Your task to perform on an android device: Do I have any events today? Image 0: 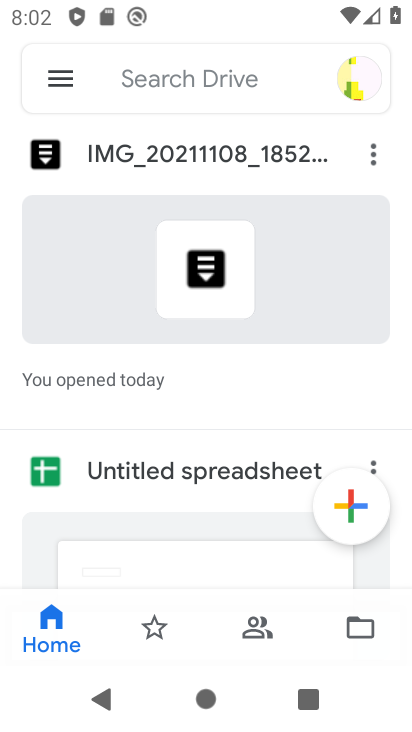
Step 0: press home button
Your task to perform on an android device: Do I have any events today? Image 1: 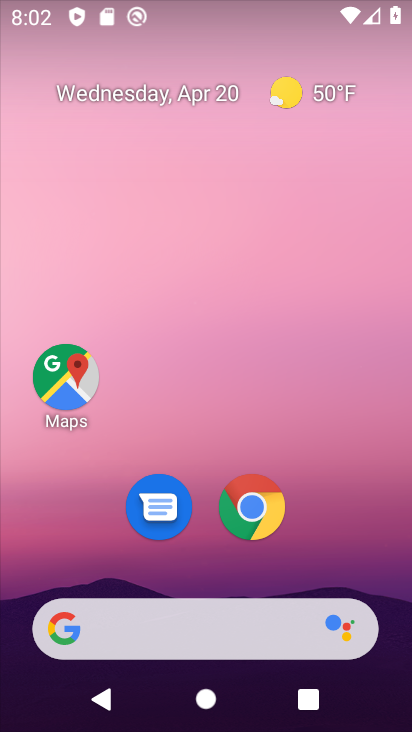
Step 1: drag from (264, 692) to (389, 148)
Your task to perform on an android device: Do I have any events today? Image 2: 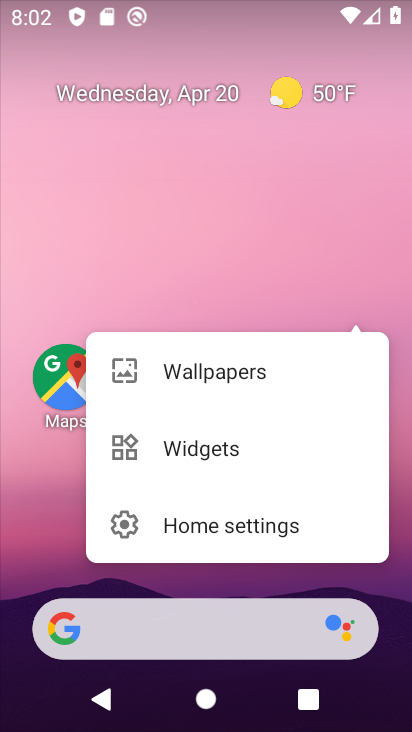
Step 2: drag from (161, 695) to (282, 116)
Your task to perform on an android device: Do I have any events today? Image 3: 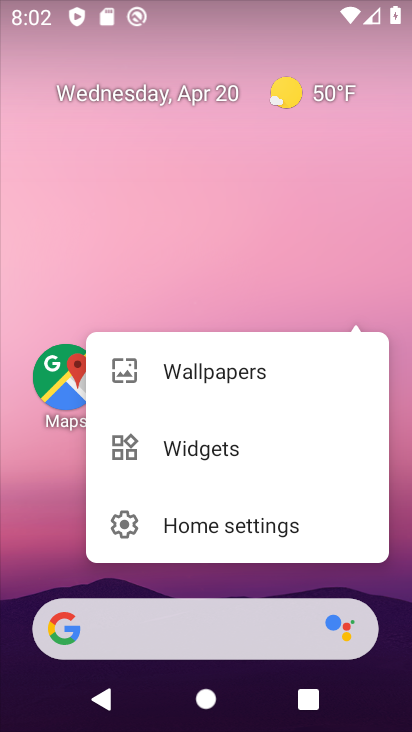
Step 3: drag from (265, 646) to (350, 147)
Your task to perform on an android device: Do I have any events today? Image 4: 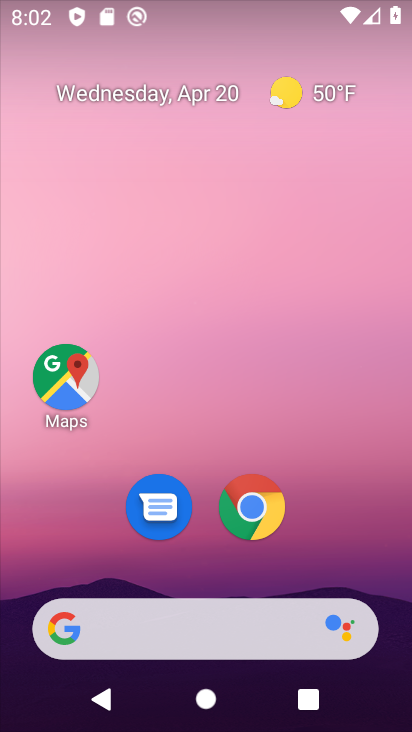
Step 4: drag from (184, 627) to (283, 185)
Your task to perform on an android device: Do I have any events today? Image 5: 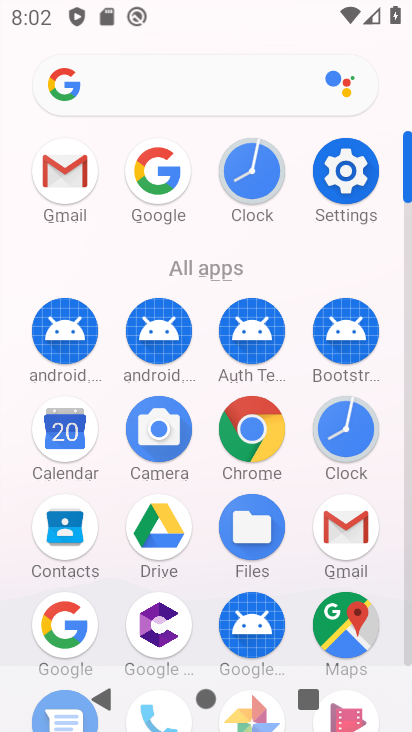
Step 5: click (36, 435)
Your task to perform on an android device: Do I have any events today? Image 6: 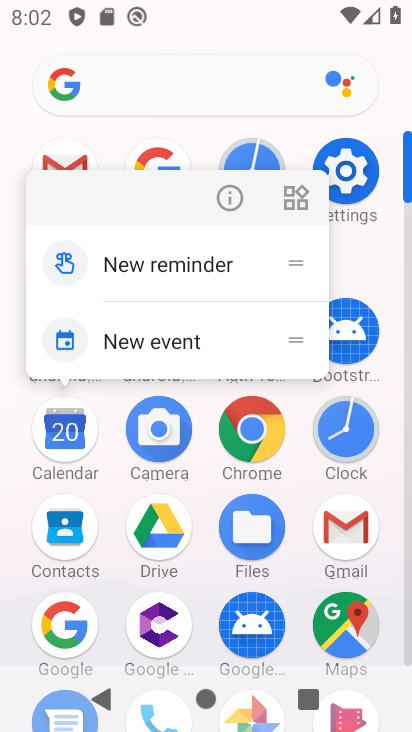
Step 6: click (48, 432)
Your task to perform on an android device: Do I have any events today? Image 7: 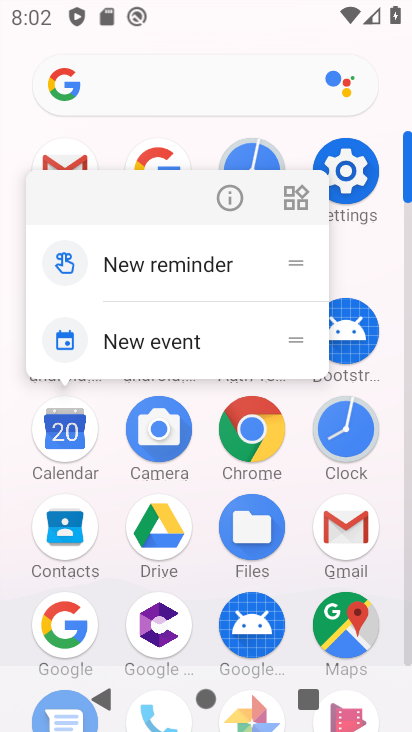
Step 7: click (48, 432)
Your task to perform on an android device: Do I have any events today? Image 8: 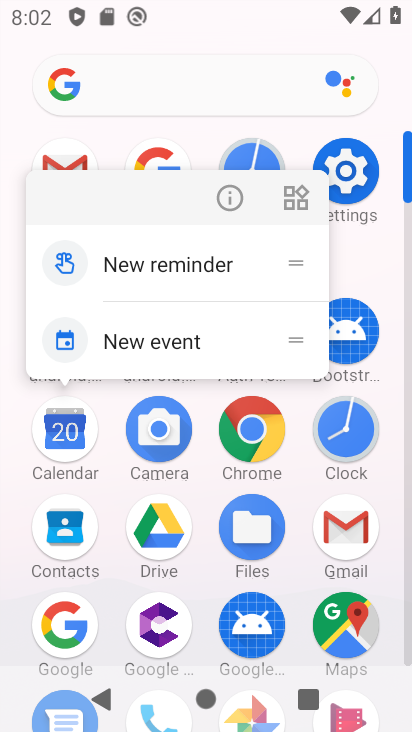
Step 8: click (48, 432)
Your task to perform on an android device: Do I have any events today? Image 9: 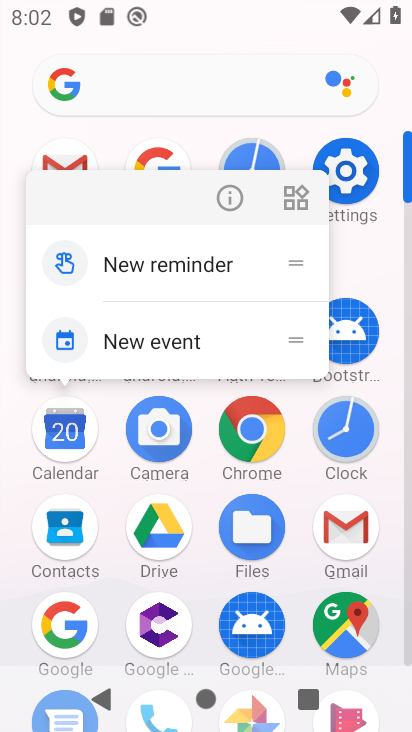
Step 9: click (48, 432)
Your task to perform on an android device: Do I have any events today? Image 10: 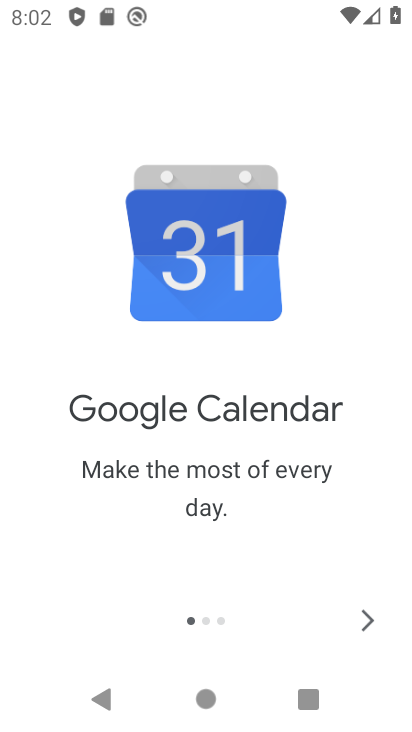
Step 10: click (373, 623)
Your task to perform on an android device: Do I have any events today? Image 11: 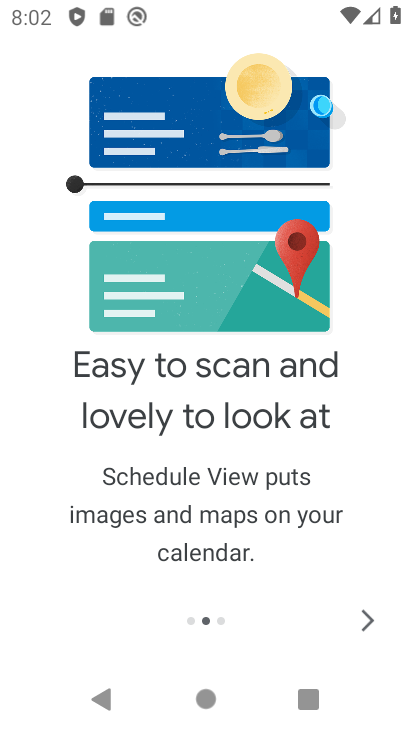
Step 11: click (373, 623)
Your task to perform on an android device: Do I have any events today? Image 12: 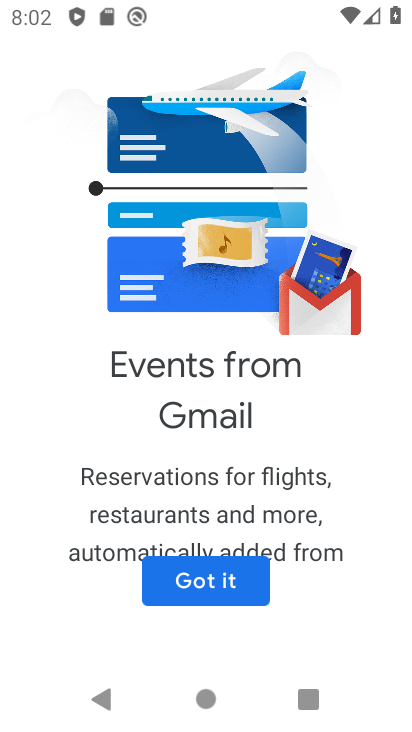
Step 12: click (244, 571)
Your task to perform on an android device: Do I have any events today? Image 13: 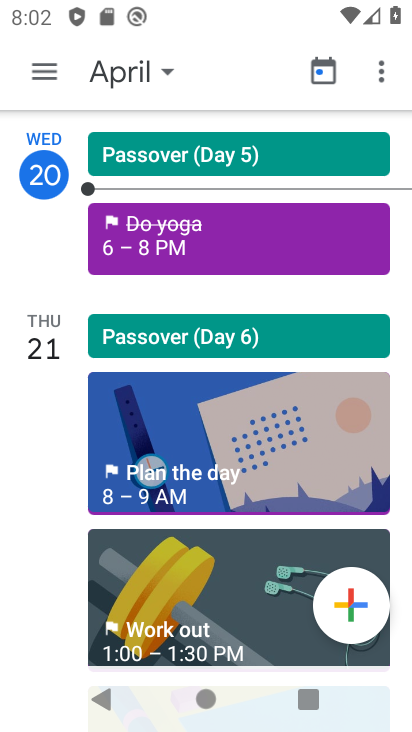
Step 13: click (140, 152)
Your task to perform on an android device: Do I have any events today? Image 14: 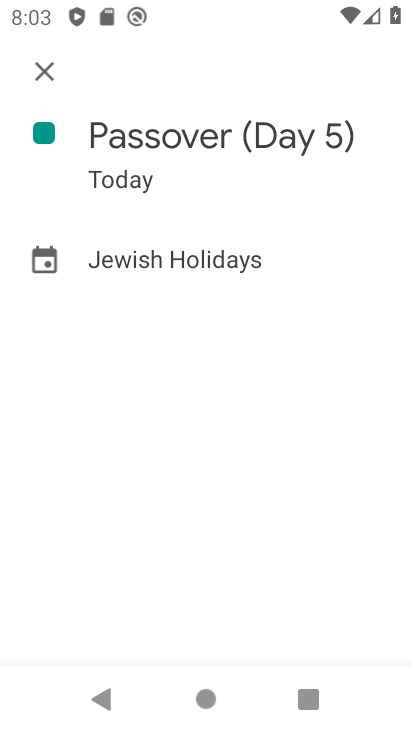
Step 14: task complete